Your task to perform on an android device: Open Maps and search for coffee Image 0: 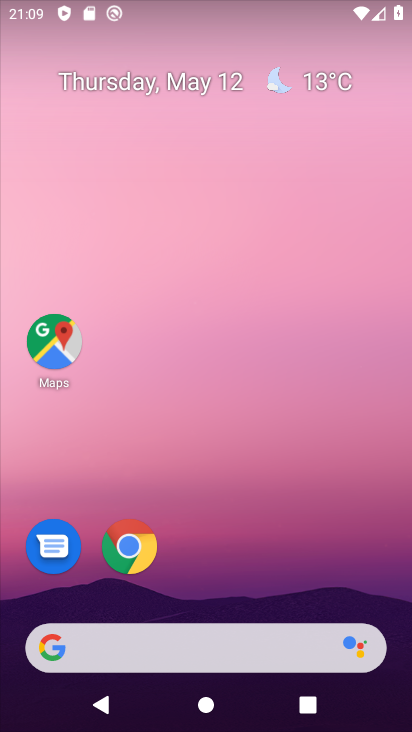
Step 0: click (58, 340)
Your task to perform on an android device: Open Maps and search for coffee Image 1: 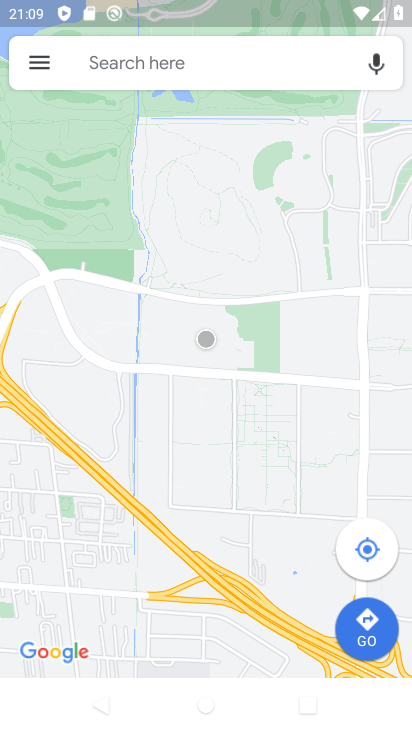
Step 1: click (173, 50)
Your task to perform on an android device: Open Maps and search for coffee Image 2: 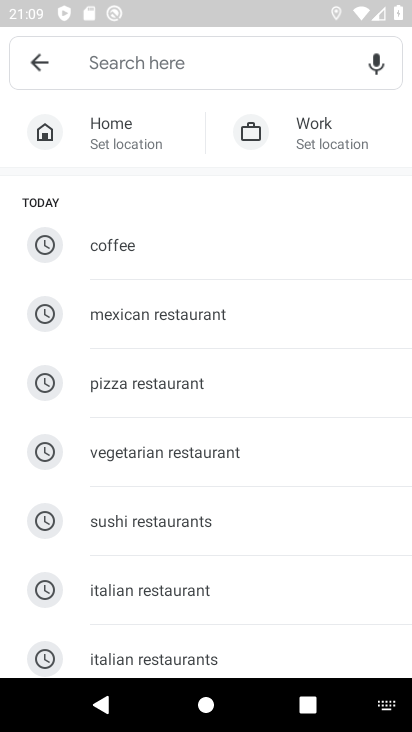
Step 2: type "coffee"
Your task to perform on an android device: Open Maps and search for coffee Image 3: 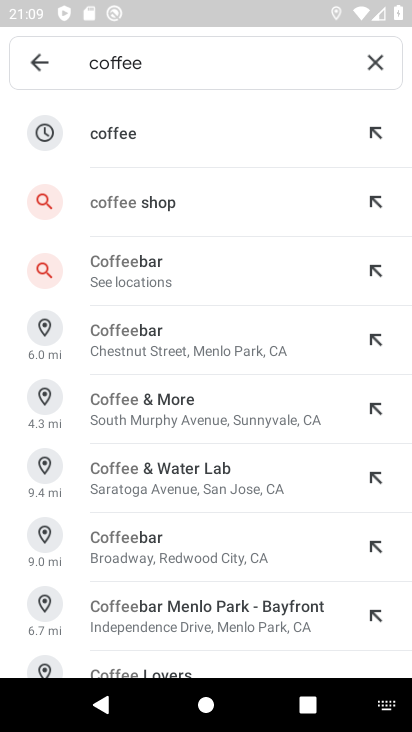
Step 3: click (106, 129)
Your task to perform on an android device: Open Maps and search for coffee Image 4: 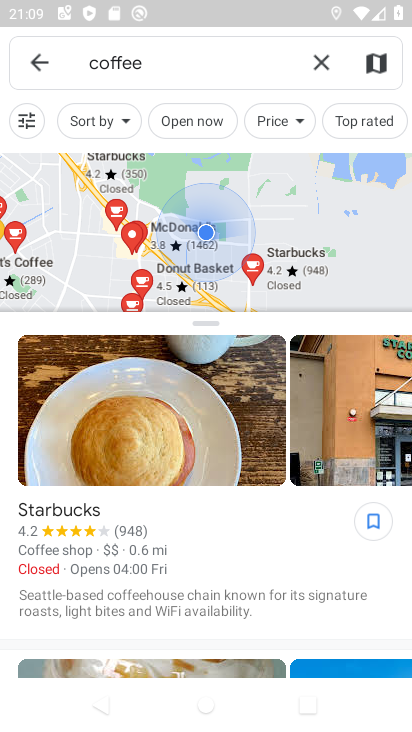
Step 4: task complete